Your task to perform on an android device: Open sound settings Image 0: 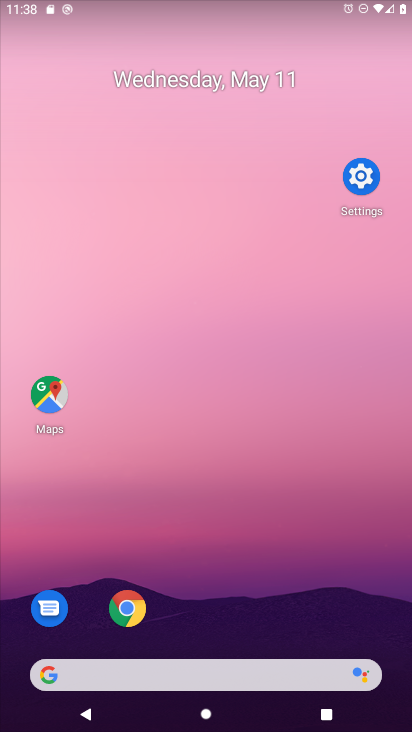
Step 0: drag from (184, 301) to (144, 196)
Your task to perform on an android device: Open sound settings Image 1: 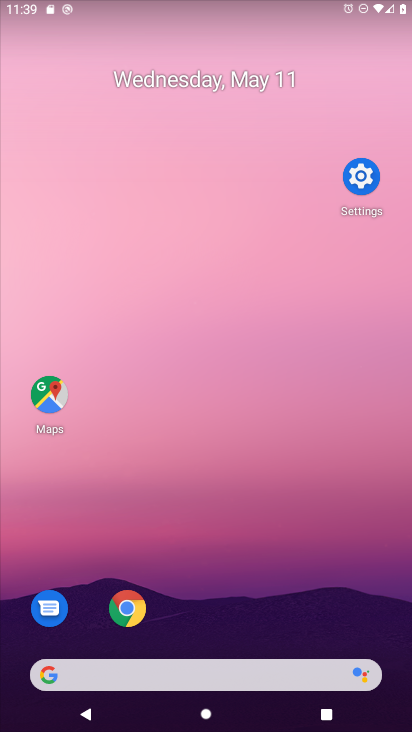
Step 1: drag from (277, 542) to (171, 100)
Your task to perform on an android device: Open sound settings Image 2: 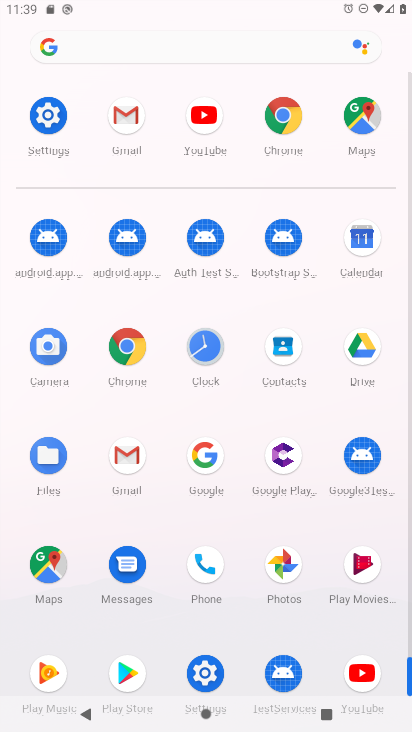
Step 2: click (152, 213)
Your task to perform on an android device: Open sound settings Image 3: 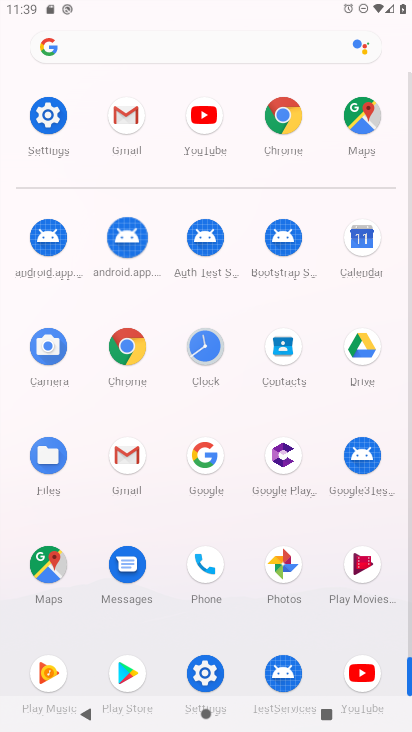
Step 3: click (45, 130)
Your task to perform on an android device: Open sound settings Image 4: 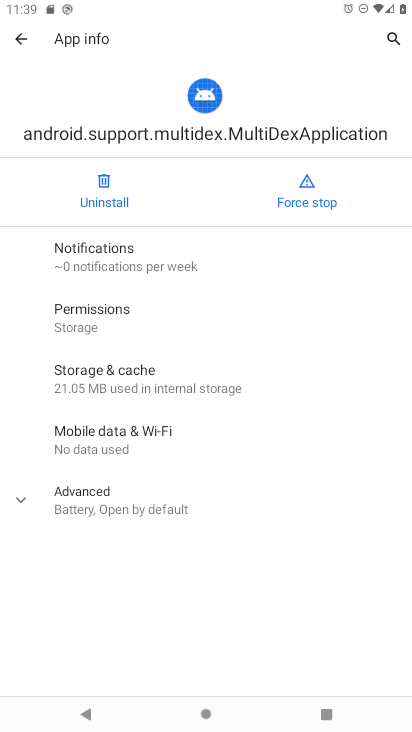
Step 4: click (16, 40)
Your task to perform on an android device: Open sound settings Image 5: 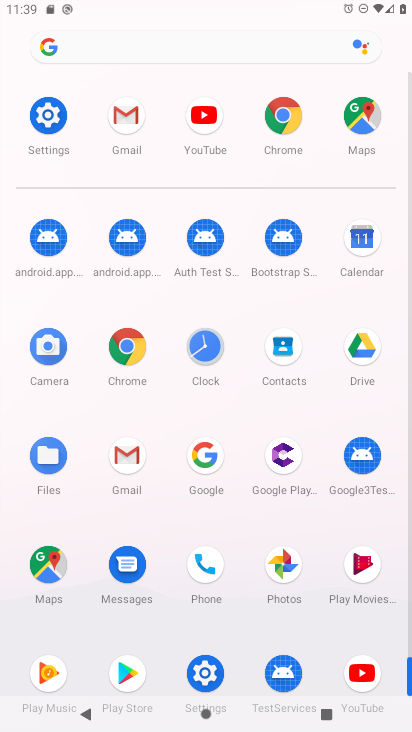
Step 5: click (41, 128)
Your task to perform on an android device: Open sound settings Image 6: 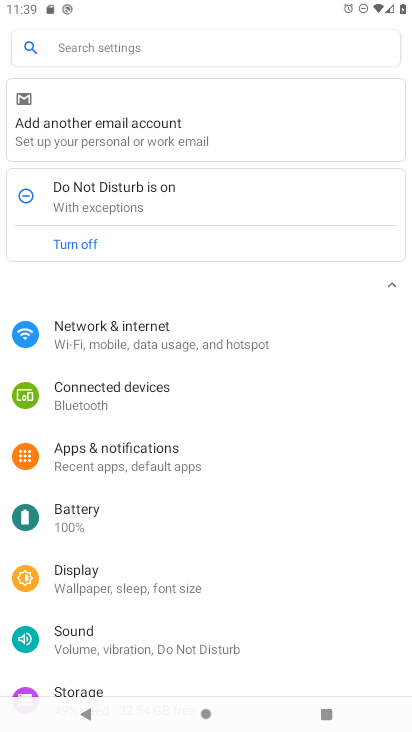
Step 6: click (87, 649)
Your task to perform on an android device: Open sound settings Image 7: 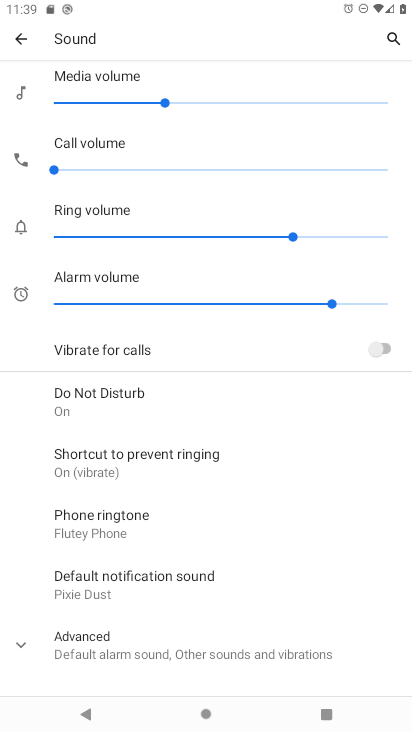
Step 7: drag from (163, 477) to (127, 2)
Your task to perform on an android device: Open sound settings Image 8: 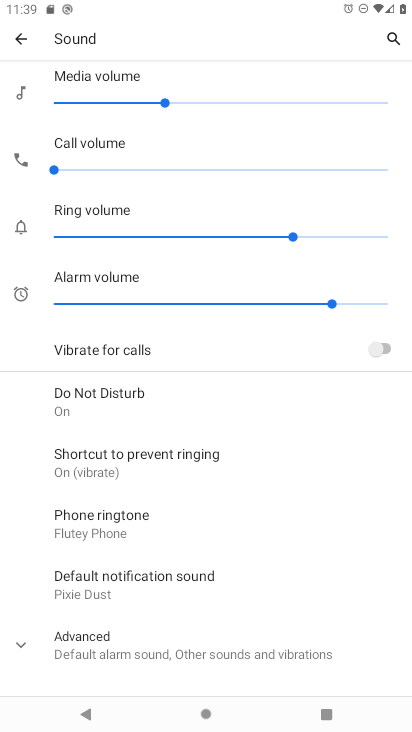
Step 8: click (150, 58)
Your task to perform on an android device: Open sound settings Image 9: 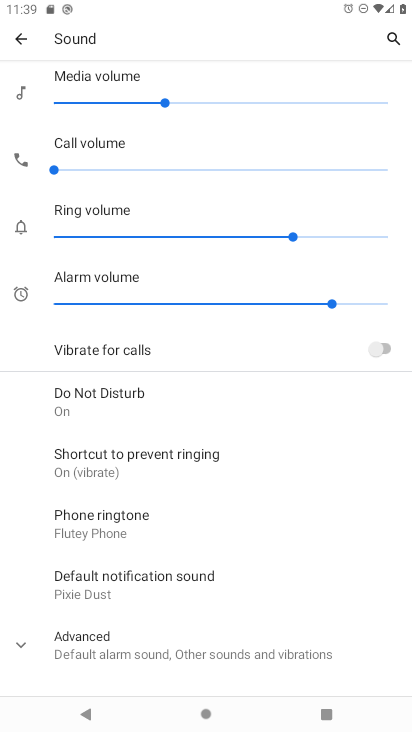
Step 9: task complete